Your task to perform on an android device: set the timer Image 0: 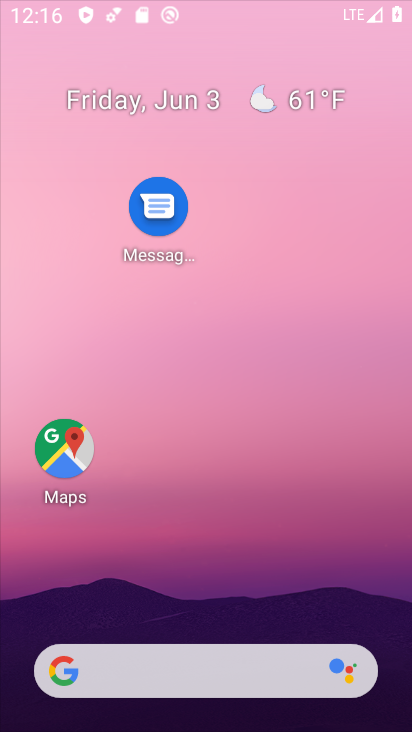
Step 0: drag from (224, 610) to (117, 81)
Your task to perform on an android device: set the timer Image 1: 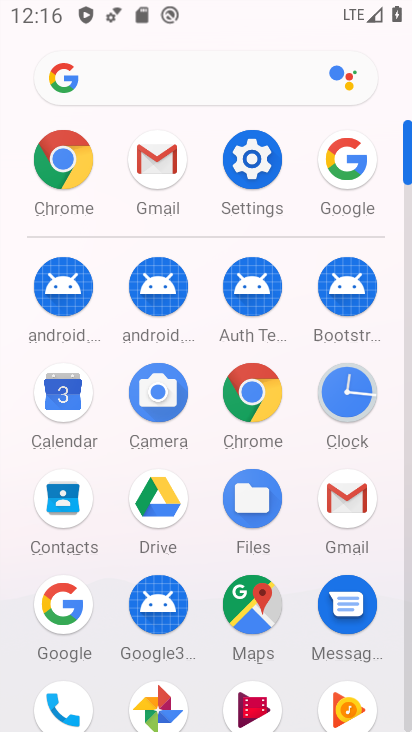
Step 1: click (330, 399)
Your task to perform on an android device: set the timer Image 2: 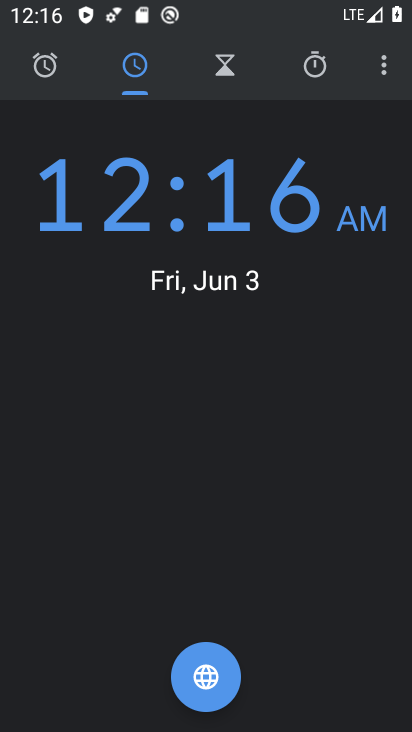
Step 2: click (216, 79)
Your task to perform on an android device: set the timer Image 3: 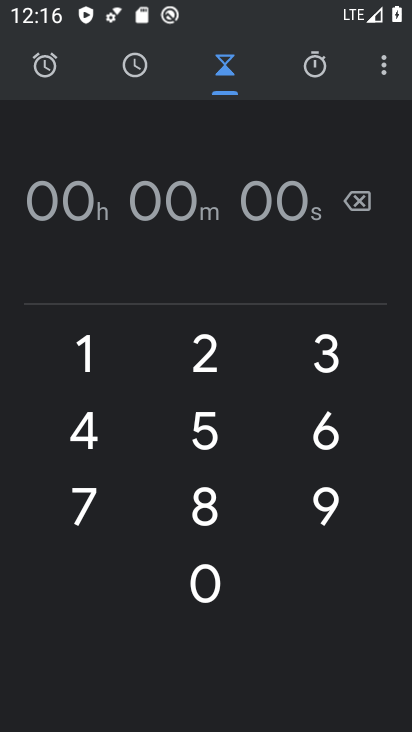
Step 3: click (216, 361)
Your task to perform on an android device: set the timer Image 4: 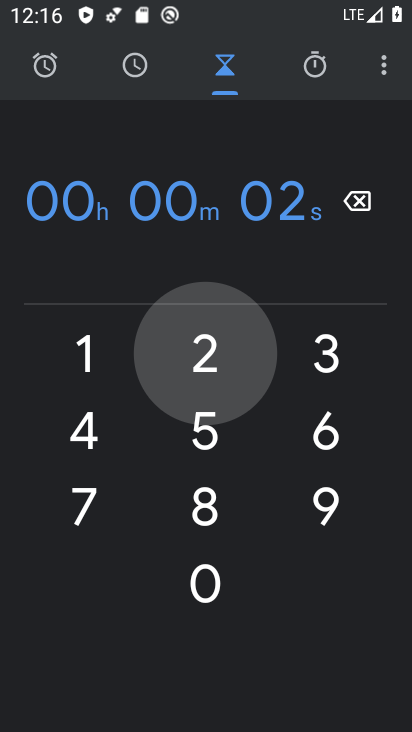
Step 4: click (206, 440)
Your task to perform on an android device: set the timer Image 5: 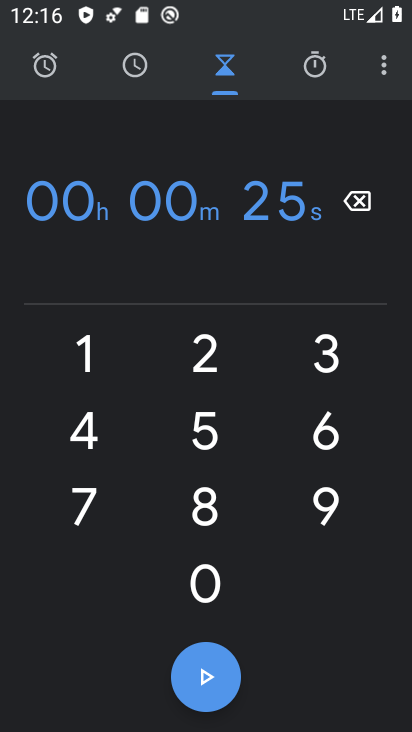
Step 5: click (246, 686)
Your task to perform on an android device: set the timer Image 6: 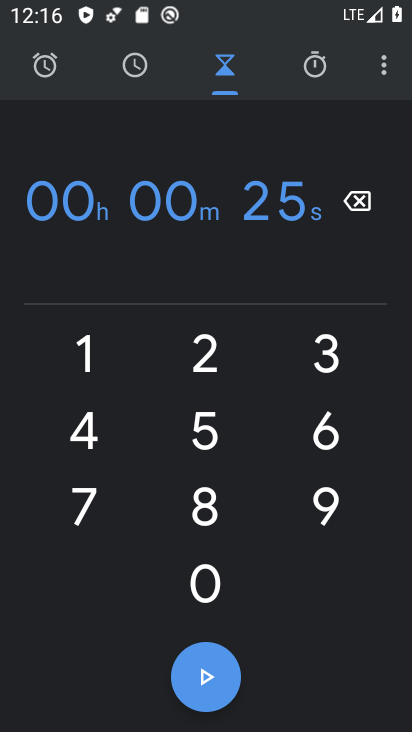
Step 6: task complete